Your task to perform on an android device: turn off airplane mode Image 0: 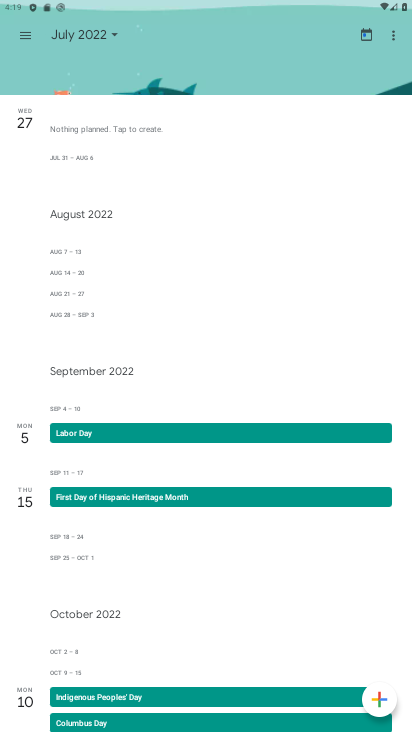
Step 0: press home button
Your task to perform on an android device: turn off airplane mode Image 1: 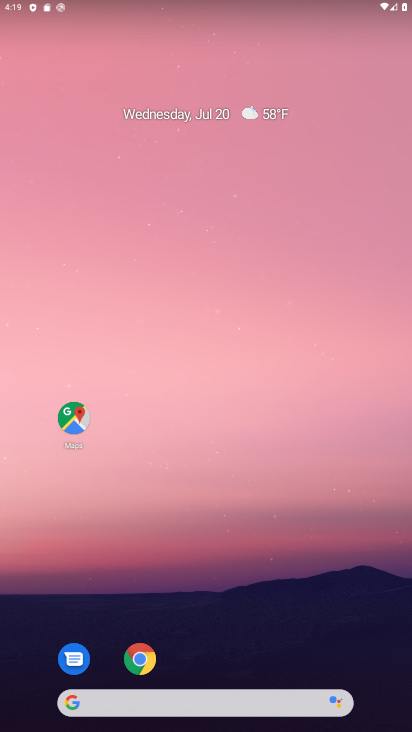
Step 1: drag from (258, 705) to (278, 188)
Your task to perform on an android device: turn off airplane mode Image 2: 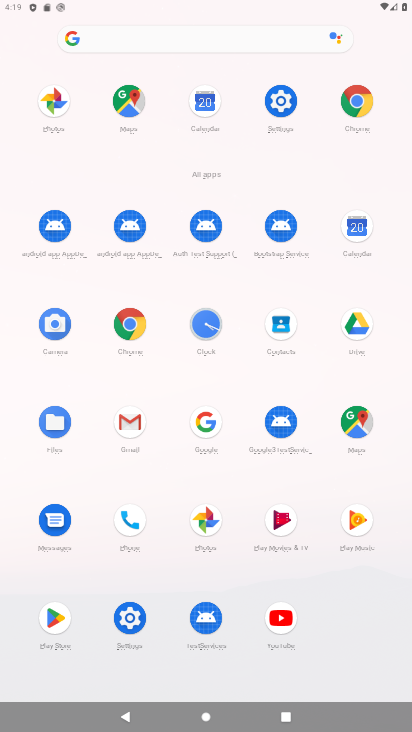
Step 2: click (288, 106)
Your task to perform on an android device: turn off airplane mode Image 3: 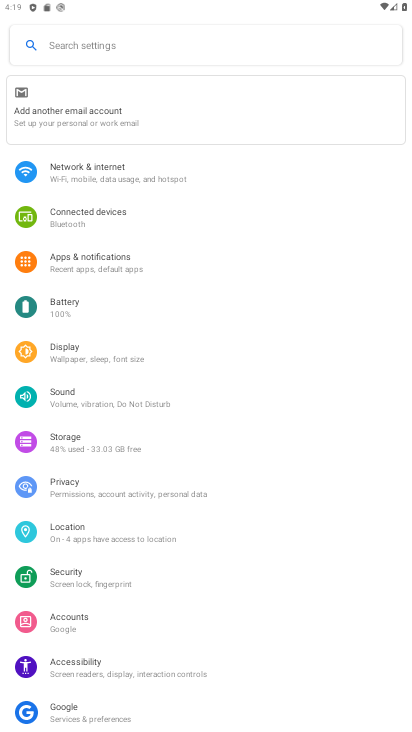
Step 3: click (142, 172)
Your task to perform on an android device: turn off airplane mode Image 4: 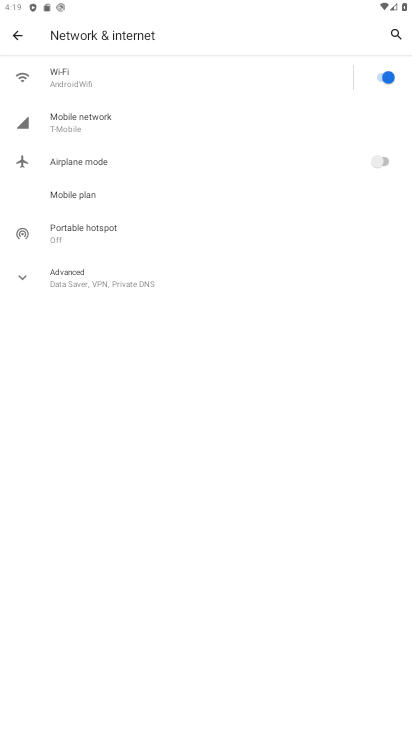
Step 4: task complete